Your task to perform on an android device: open chrome privacy settings Image 0: 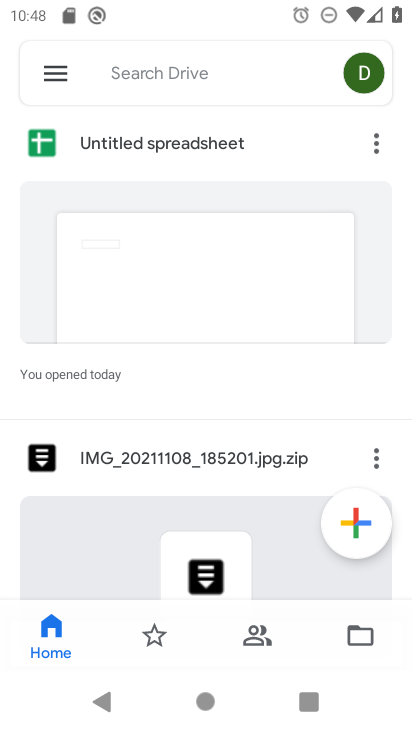
Step 0: press home button
Your task to perform on an android device: open chrome privacy settings Image 1: 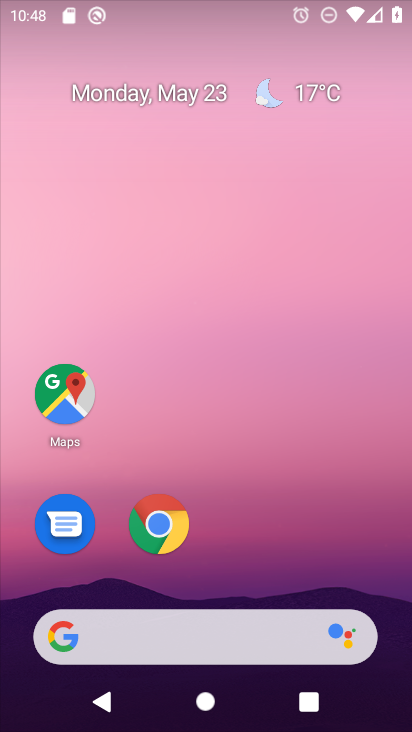
Step 1: click (165, 533)
Your task to perform on an android device: open chrome privacy settings Image 2: 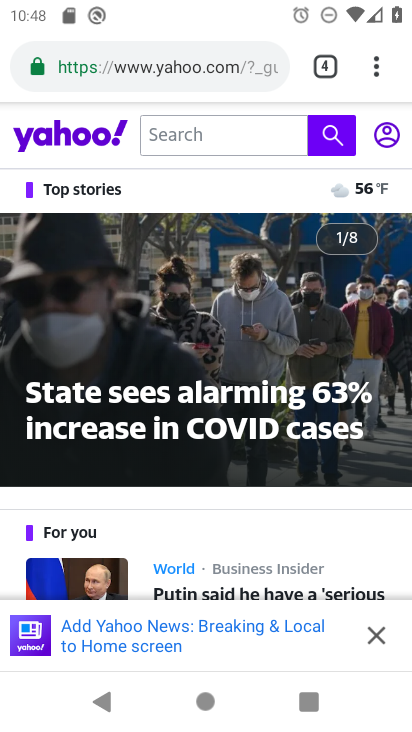
Step 2: drag from (369, 71) to (194, 521)
Your task to perform on an android device: open chrome privacy settings Image 3: 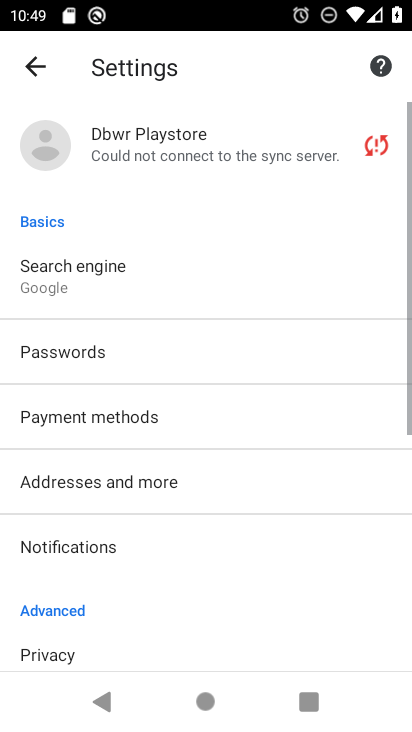
Step 3: drag from (204, 589) to (232, 305)
Your task to perform on an android device: open chrome privacy settings Image 4: 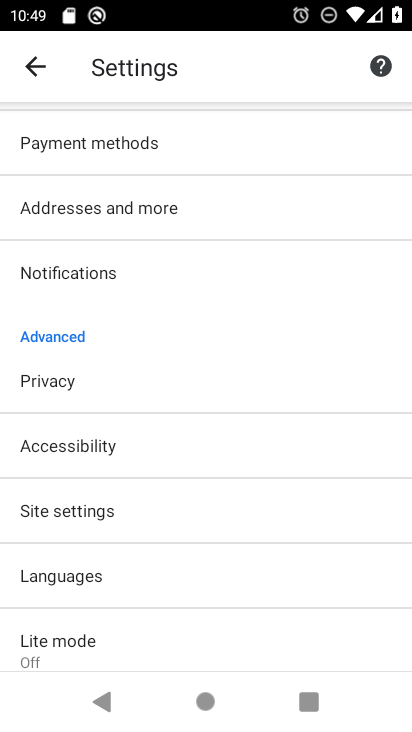
Step 4: click (139, 391)
Your task to perform on an android device: open chrome privacy settings Image 5: 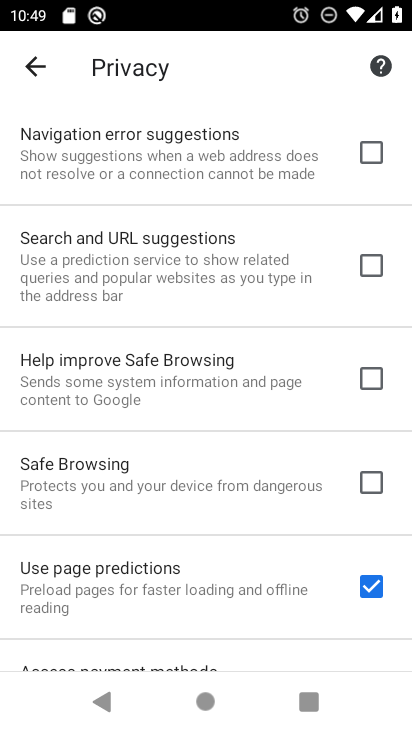
Step 5: task complete